Your task to perform on an android device: check google app version Image 0: 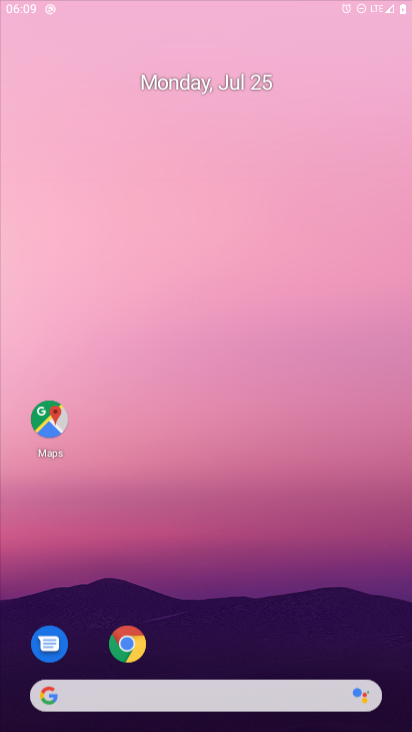
Step 0: press home button
Your task to perform on an android device: check google app version Image 1: 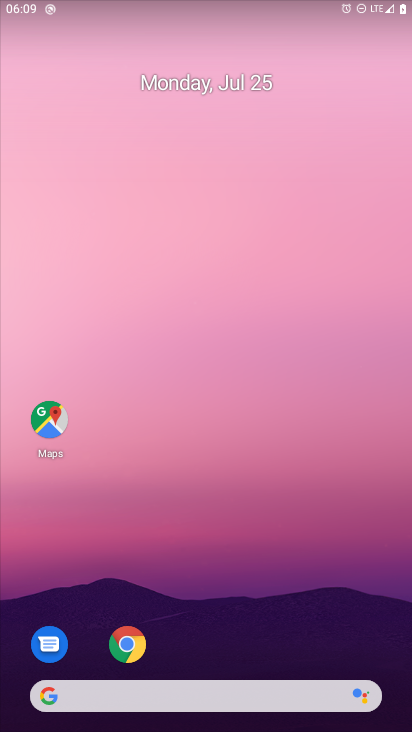
Step 1: drag from (250, 656) to (184, 144)
Your task to perform on an android device: check google app version Image 2: 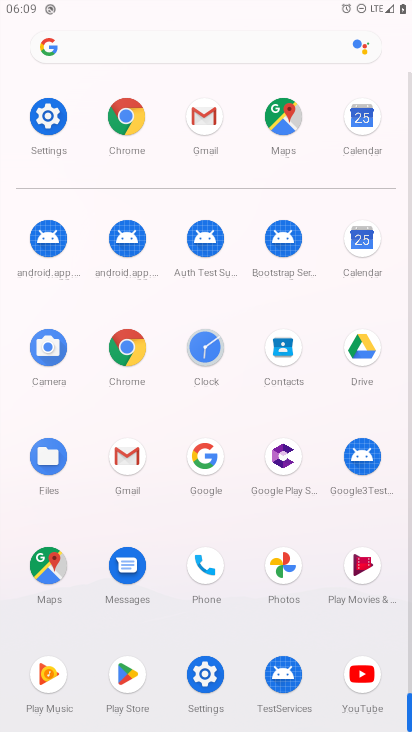
Step 2: click (209, 456)
Your task to perform on an android device: check google app version Image 3: 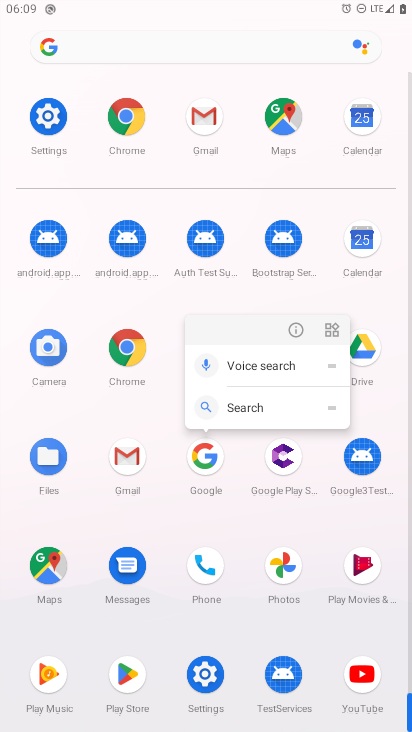
Step 3: click (298, 324)
Your task to perform on an android device: check google app version Image 4: 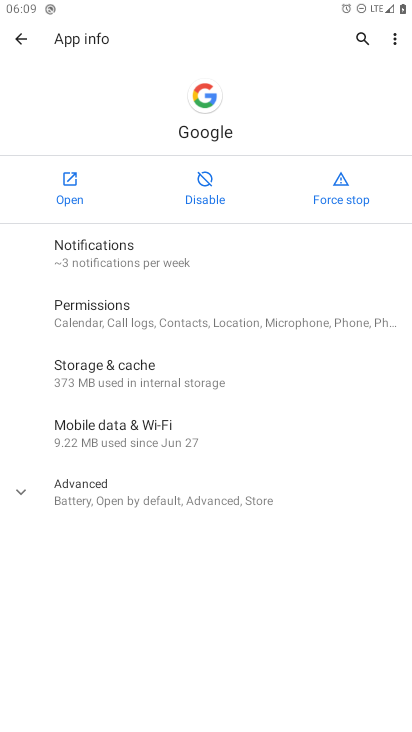
Step 4: click (85, 499)
Your task to perform on an android device: check google app version Image 5: 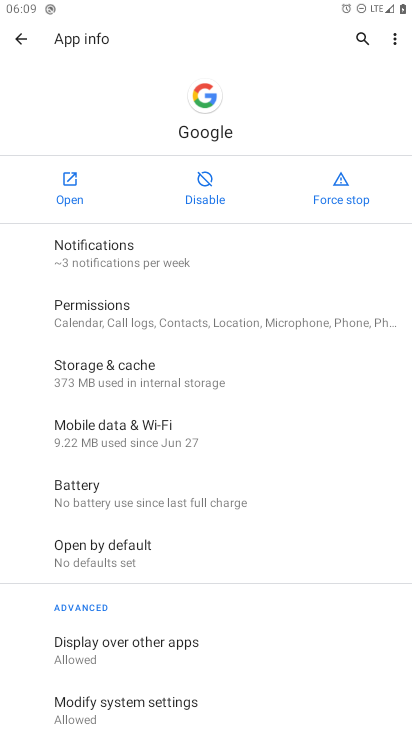
Step 5: task complete